Your task to perform on an android device: turn on notifications settings in the gmail app Image 0: 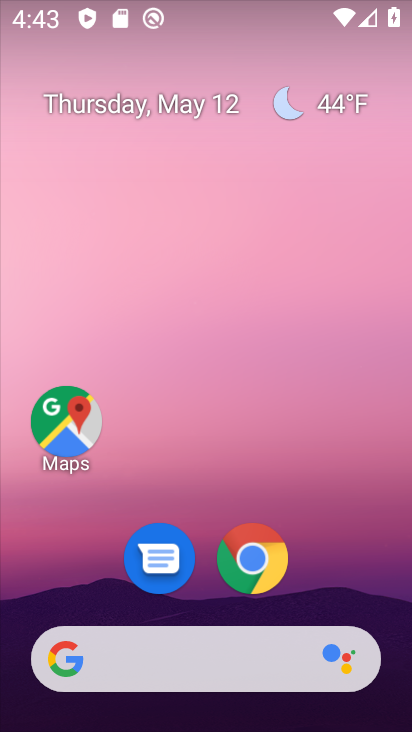
Step 0: drag from (317, 552) to (244, 42)
Your task to perform on an android device: turn on notifications settings in the gmail app Image 1: 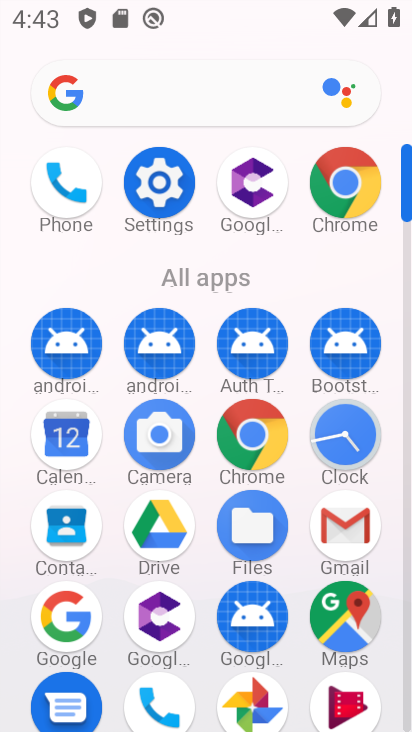
Step 1: drag from (10, 554) to (10, 258)
Your task to perform on an android device: turn on notifications settings in the gmail app Image 2: 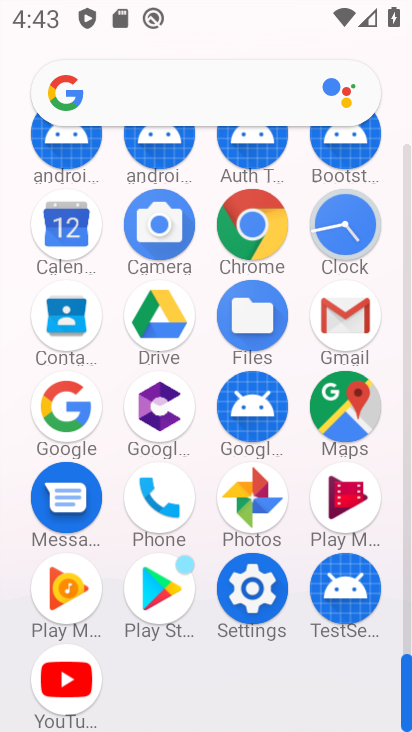
Step 2: click (341, 311)
Your task to perform on an android device: turn on notifications settings in the gmail app Image 3: 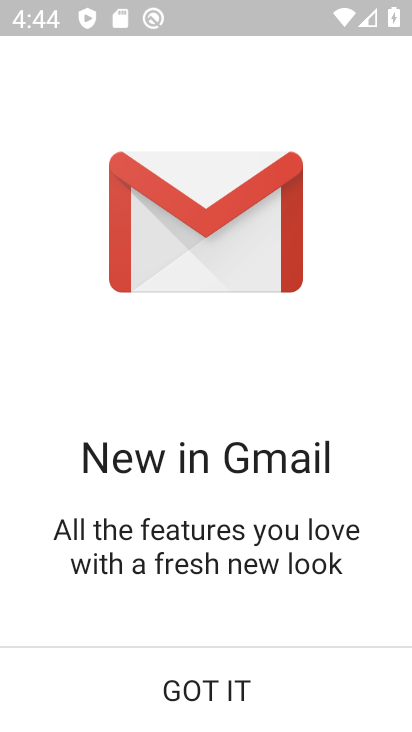
Step 3: click (237, 706)
Your task to perform on an android device: turn on notifications settings in the gmail app Image 4: 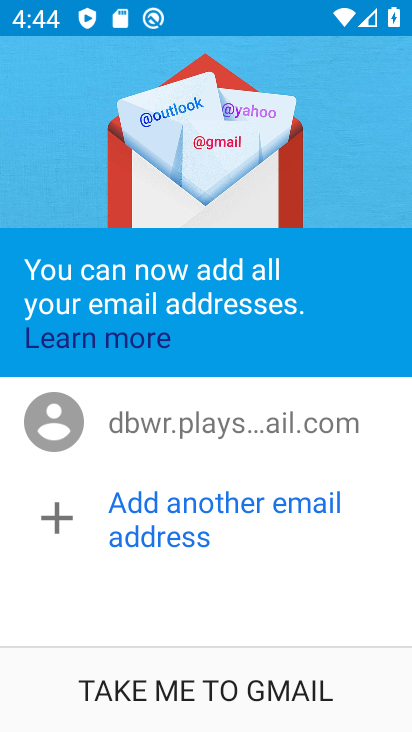
Step 4: click (226, 676)
Your task to perform on an android device: turn on notifications settings in the gmail app Image 5: 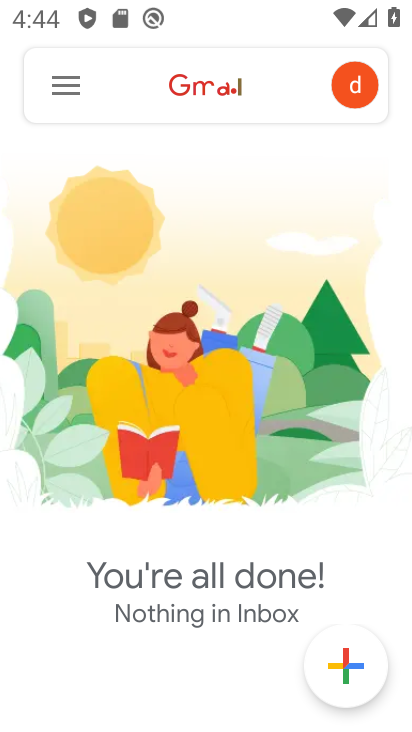
Step 5: click (54, 78)
Your task to perform on an android device: turn on notifications settings in the gmail app Image 6: 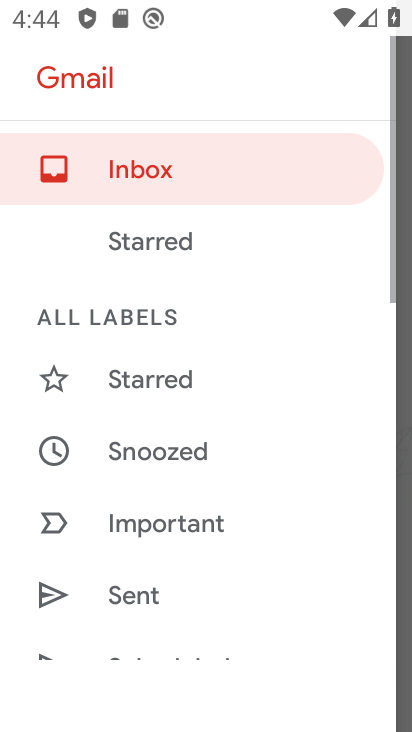
Step 6: drag from (208, 579) to (236, 152)
Your task to perform on an android device: turn on notifications settings in the gmail app Image 7: 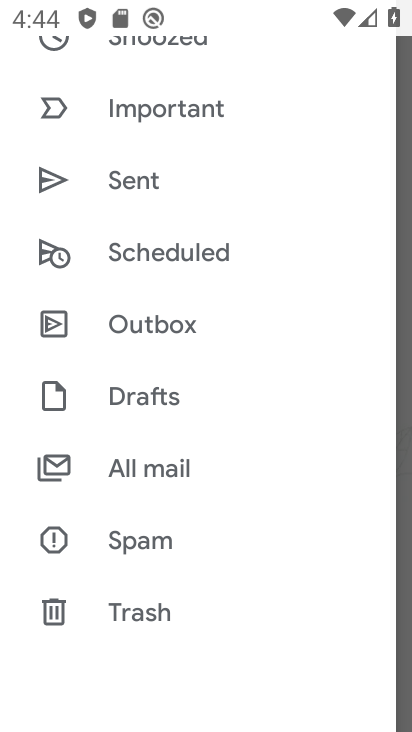
Step 7: drag from (219, 599) to (236, 200)
Your task to perform on an android device: turn on notifications settings in the gmail app Image 8: 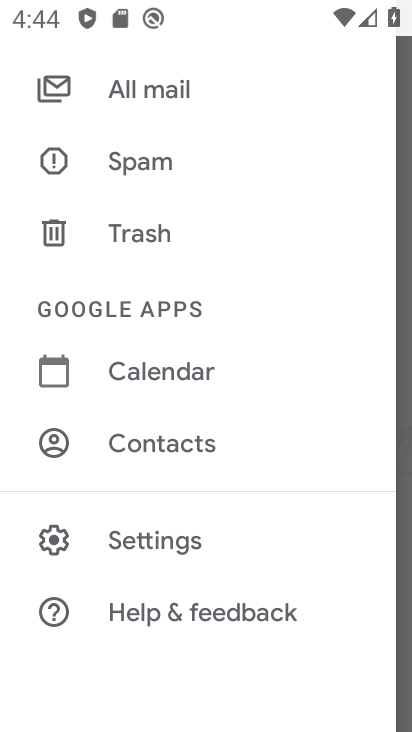
Step 8: click (184, 536)
Your task to perform on an android device: turn on notifications settings in the gmail app Image 9: 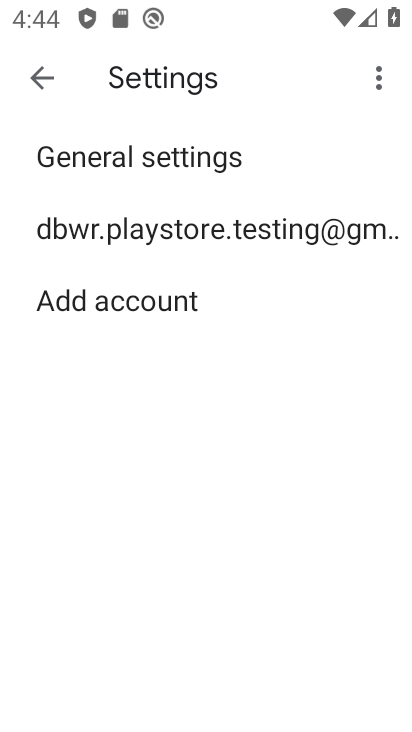
Step 9: click (175, 232)
Your task to perform on an android device: turn on notifications settings in the gmail app Image 10: 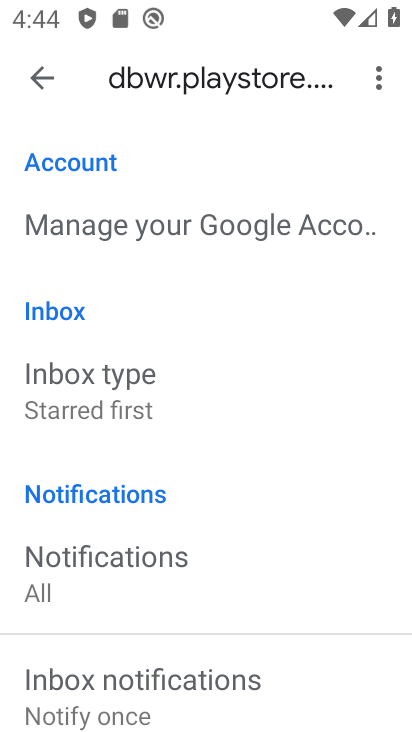
Step 10: drag from (236, 540) to (244, 237)
Your task to perform on an android device: turn on notifications settings in the gmail app Image 11: 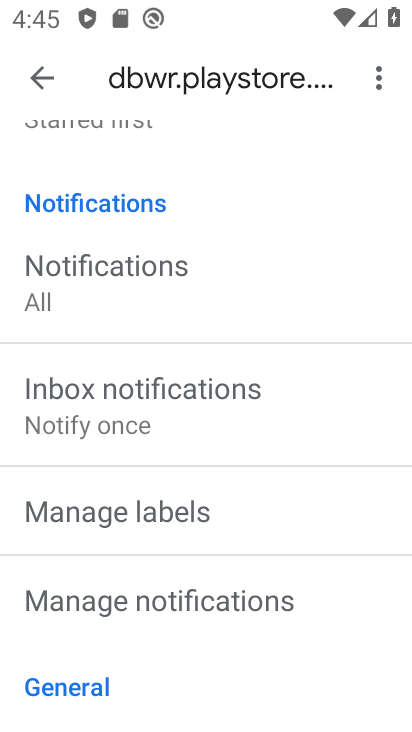
Step 11: click (230, 587)
Your task to perform on an android device: turn on notifications settings in the gmail app Image 12: 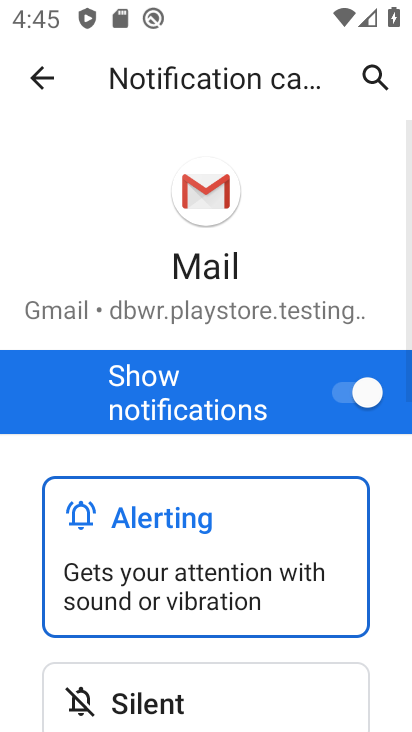
Step 12: drag from (204, 538) to (230, 181)
Your task to perform on an android device: turn on notifications settings in the gmail app Image 13: 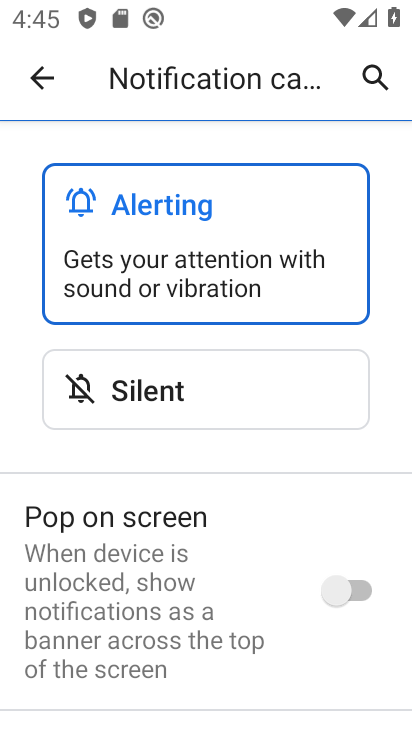
Step 13: drag from (203, 591) to (206, 193)
Your task to perform on an android device: turn on notifications settings in the gmail app Image 14: 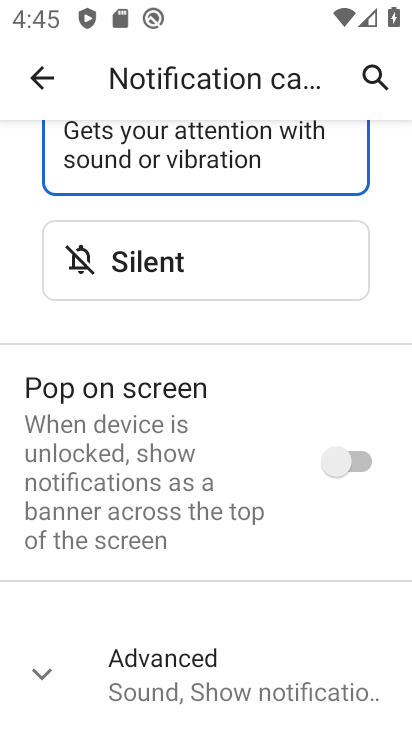
Step 14: drag from (203, 558) to (206, 333)
Your task to perform on an android device: turn on notifications settings in the gmail app Image 15: 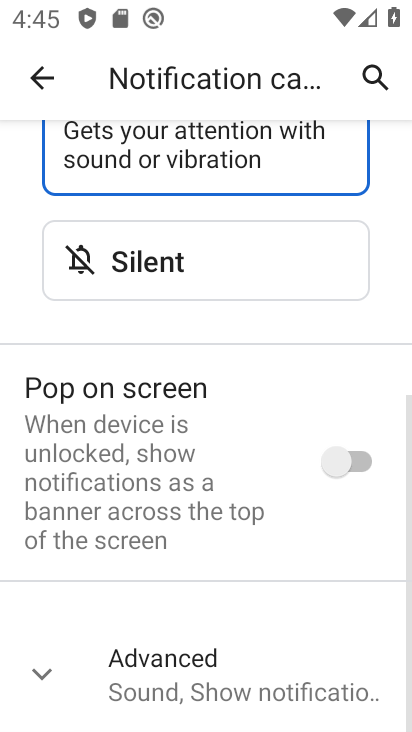
Step 15: click (47, 664)
Your task to perform on an android device: turn on notifications settings in the gmail app Image 16: 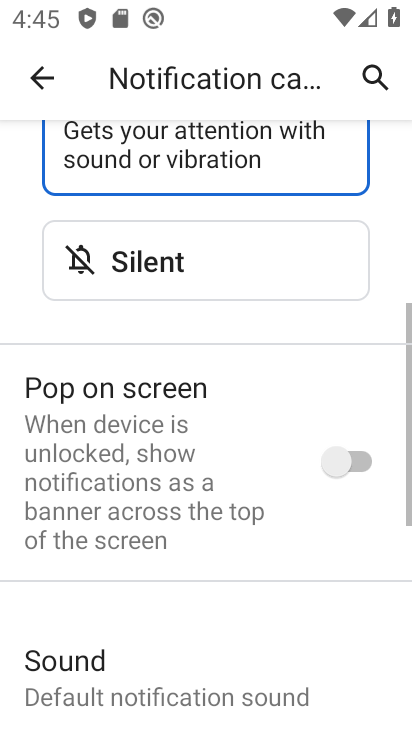
Step 16: task complete